Your task to perform on an android device: search for starred emails in the gmail app Image 0: 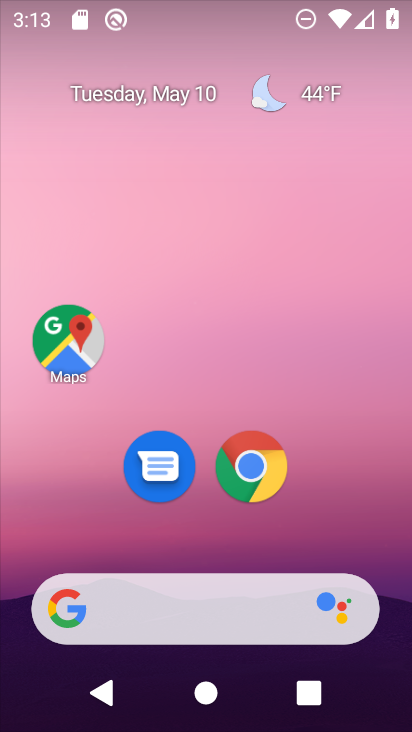
Step 0: drag from (349, 539) to (322, 36)
Your task to perform on an android device: search for starred emails in the gmail app Image 1: 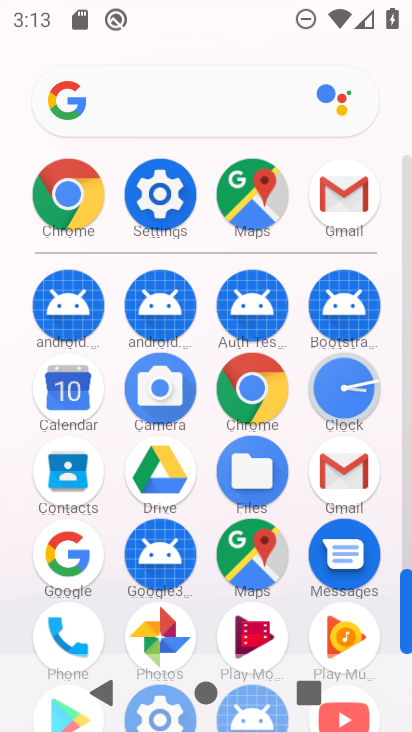
Step 1: click (345, 490)
Your task to perform on an android device: search for starred emails in the gmail app Image 2: 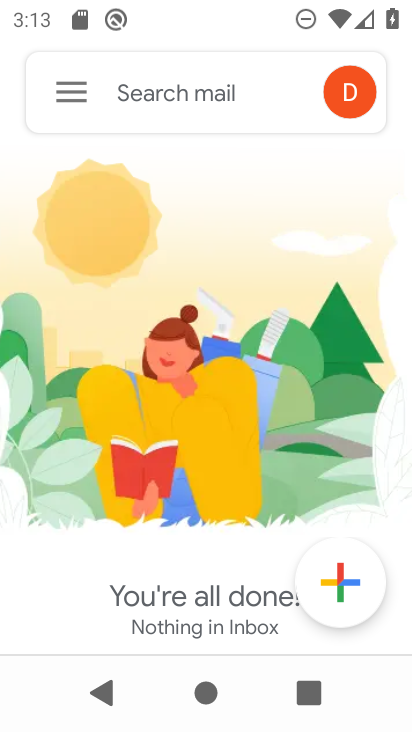
Step 2: click (77, 84)
Your task to perform on an android device: search for starred emails in the gmail app Image 3: 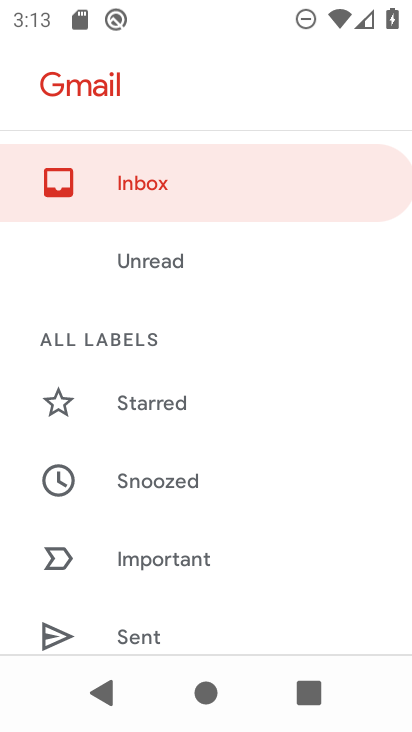
Step 3: click (187, 413)
Your task to perform on an android device: search for starred emails in the gmail app Image 4: 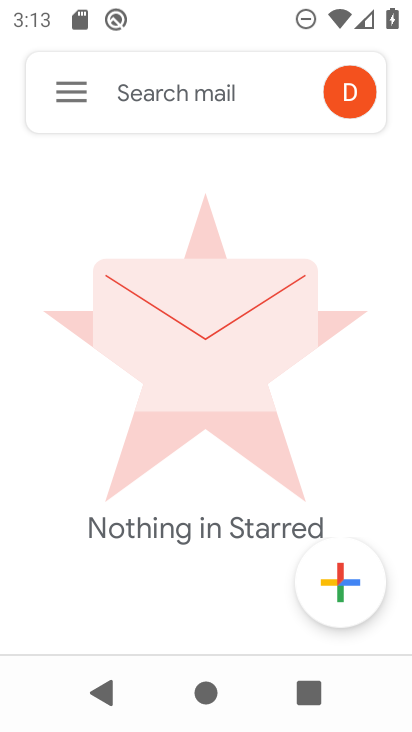
Step 4: task complete